Your task to perform on an android device: Open sound settings Image 0: 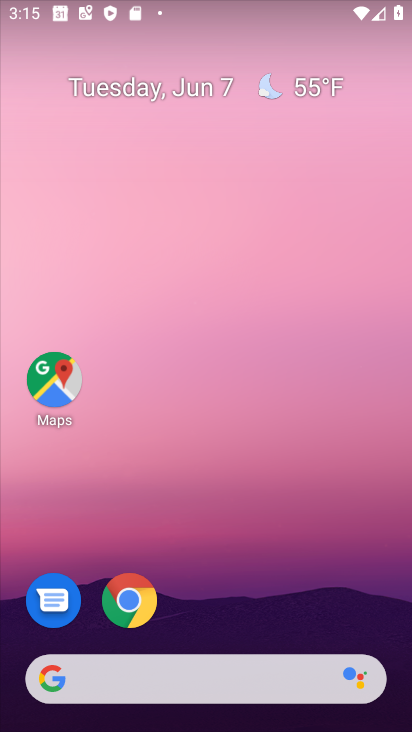
Step 0: drag from (190, 636) to (295, 9)
Your task to perform on an android device: Open sound settings Image 1: 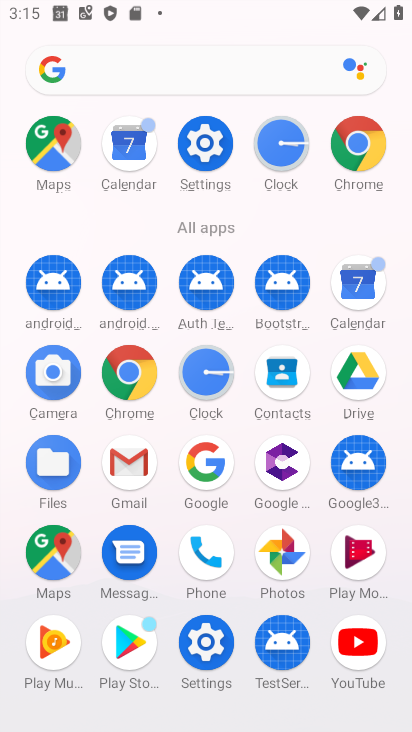
Step 1: click (204, 146)
Your task to perform on an android device: Open sound settings Image 2: 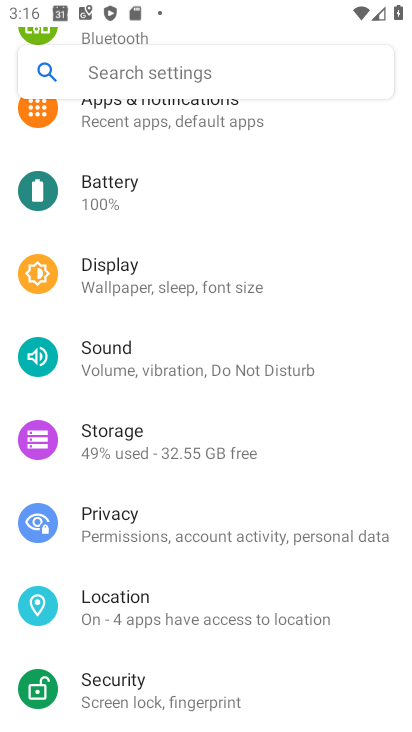
Step 2: click (126, 383)
Your task to perform on an android device: Open sound settings Image 3: 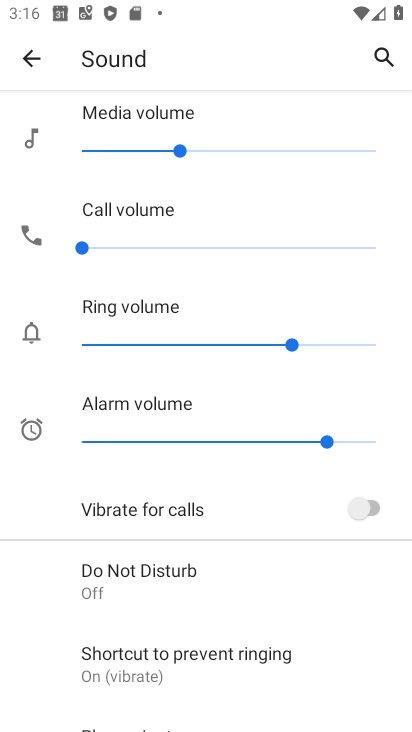
Step 3: task complete